Your task to perform on an android device: Open Wikipedia Image 0: 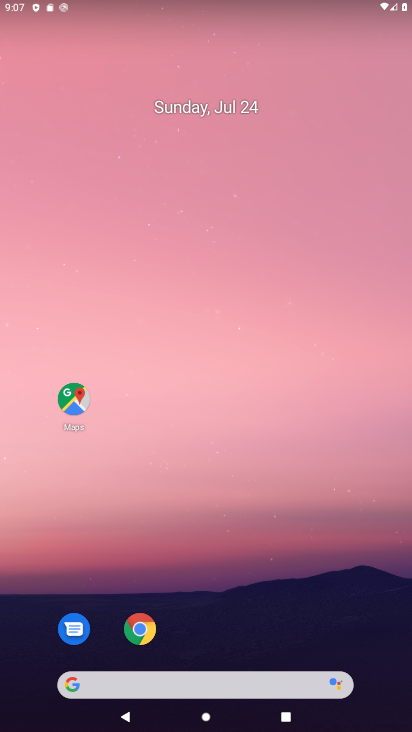
Step 0: task complete